Your task to perform on an android device: What's the weather? Image 0: 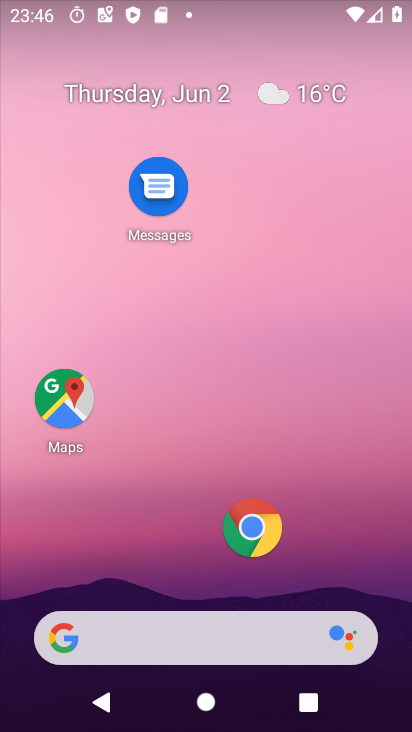
Step 0: click (318, 86)
Your task to perform on an android device: What's the weather? Image 1: 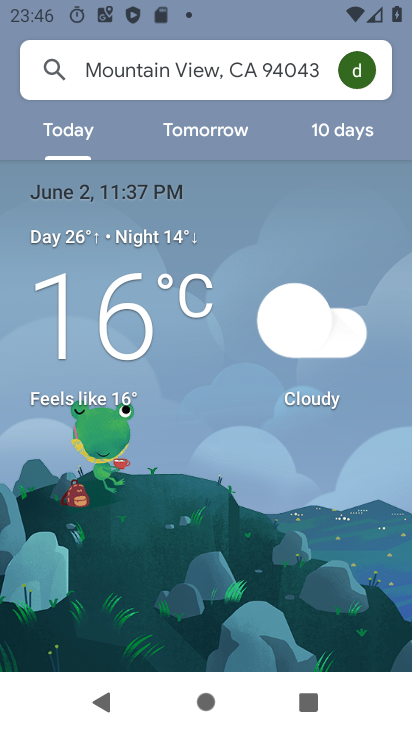
Step 1: task complete